Your task to perform on an android device: move a message to another label in the gmail app Image 0: 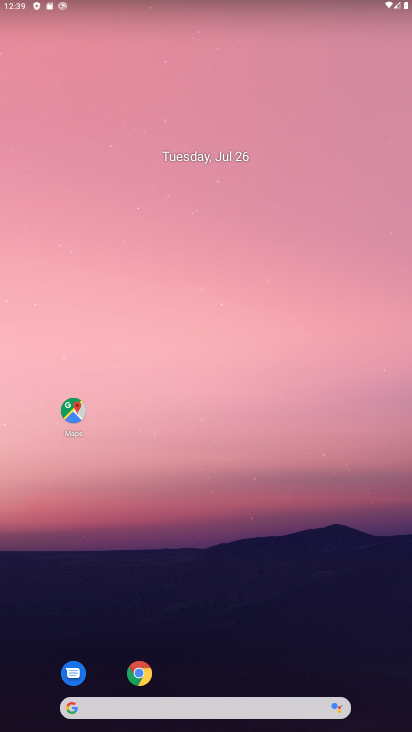
Step 0: drag from (179, 653) to (258, 200)
Your task to perform on an android device: move a message to another label in the gmail app Image 1: 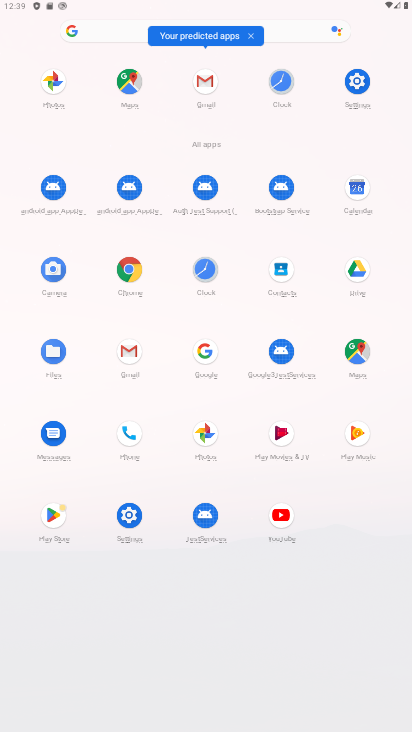
Step 1: click (119, 347)
Your task to perform on an android device: move a message to another label in the gmail app Image 2: 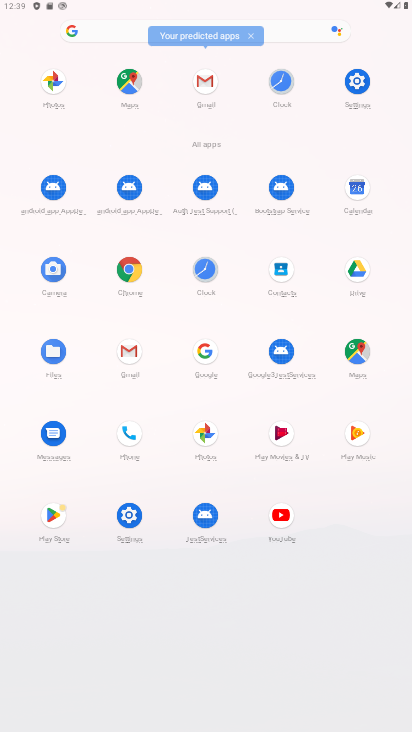
Step 2: click (121, 345)
Your task to perform on an android device: move a message to another label in the gmail app Image 3: 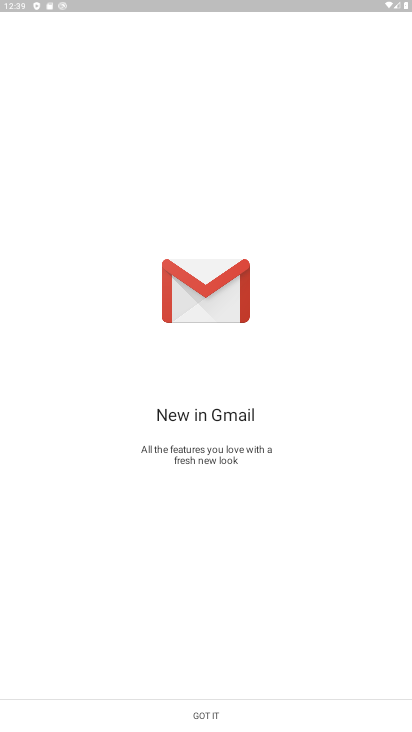
Step 3: click (196, 713)
Your task to perform on an android device: move a message to another label in the gmail app Image 4: 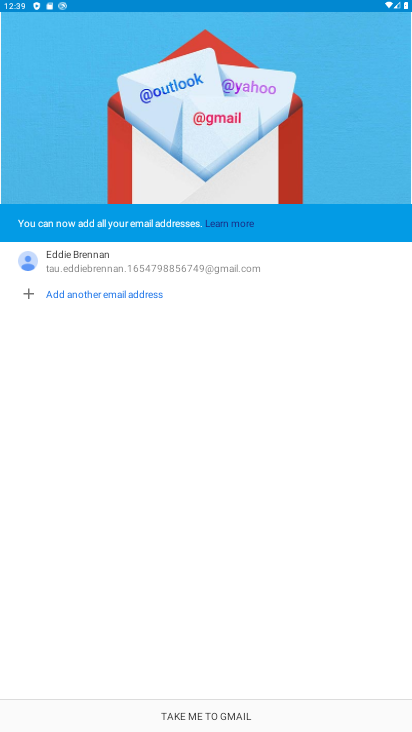
Step 4: click (192, 708)
Your task to perform on an android device: move a message to another label in the gmail app Image 5: 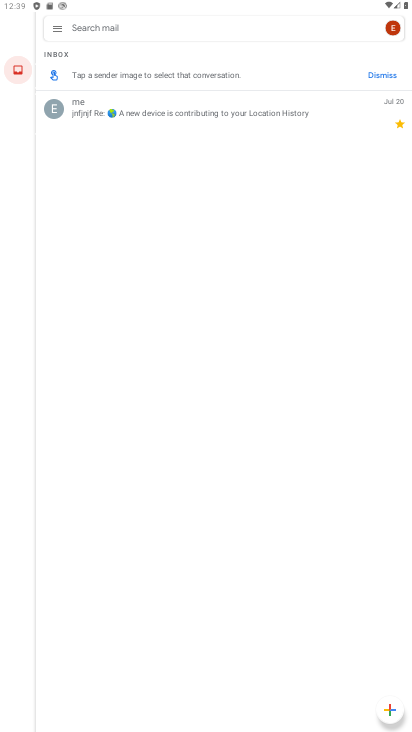
Step 5: click (399, 127)
Your task to perform on an android device: move a message to another label in the gmail app Image 6: 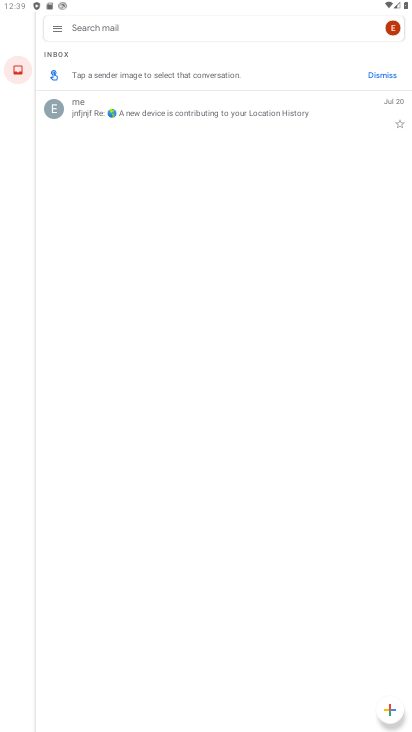
Step 6: task complete